Your task to perform on an android device: set the timer Image 0: 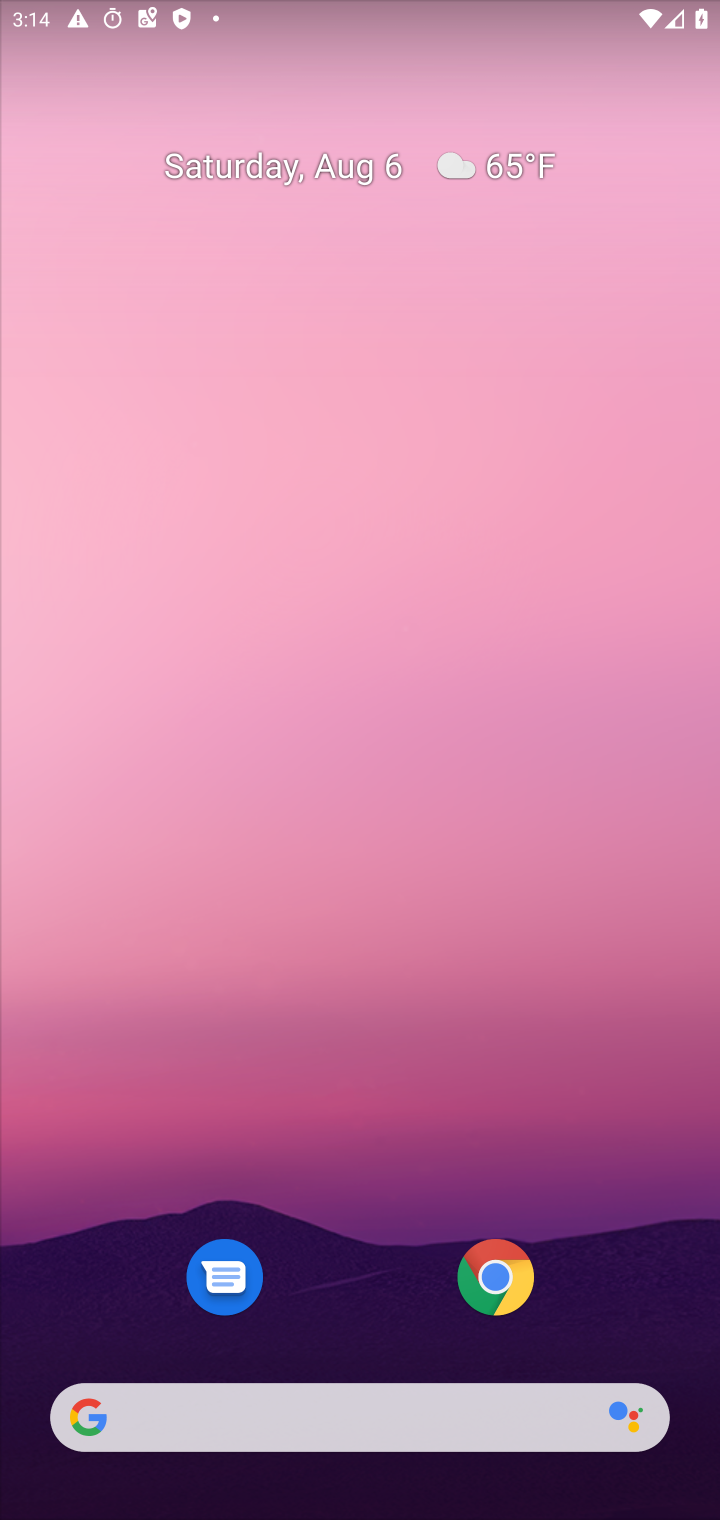
Step 0: drag from (448, 1405) to (498, 368)
Your task to perform on an android device: set the timer Image 1: 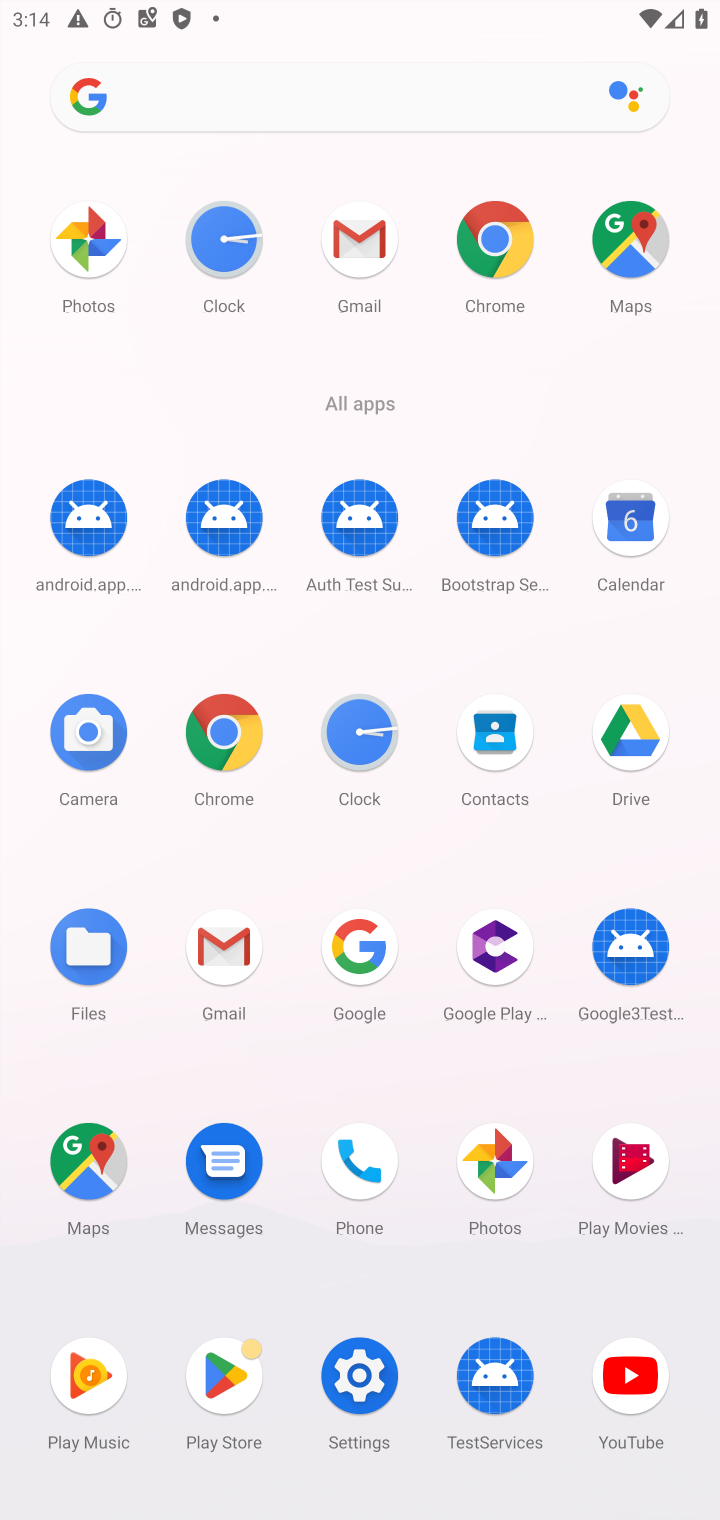
Step 1: click (355, 729)
Your task to perform on an android device: set the timer Image 2: 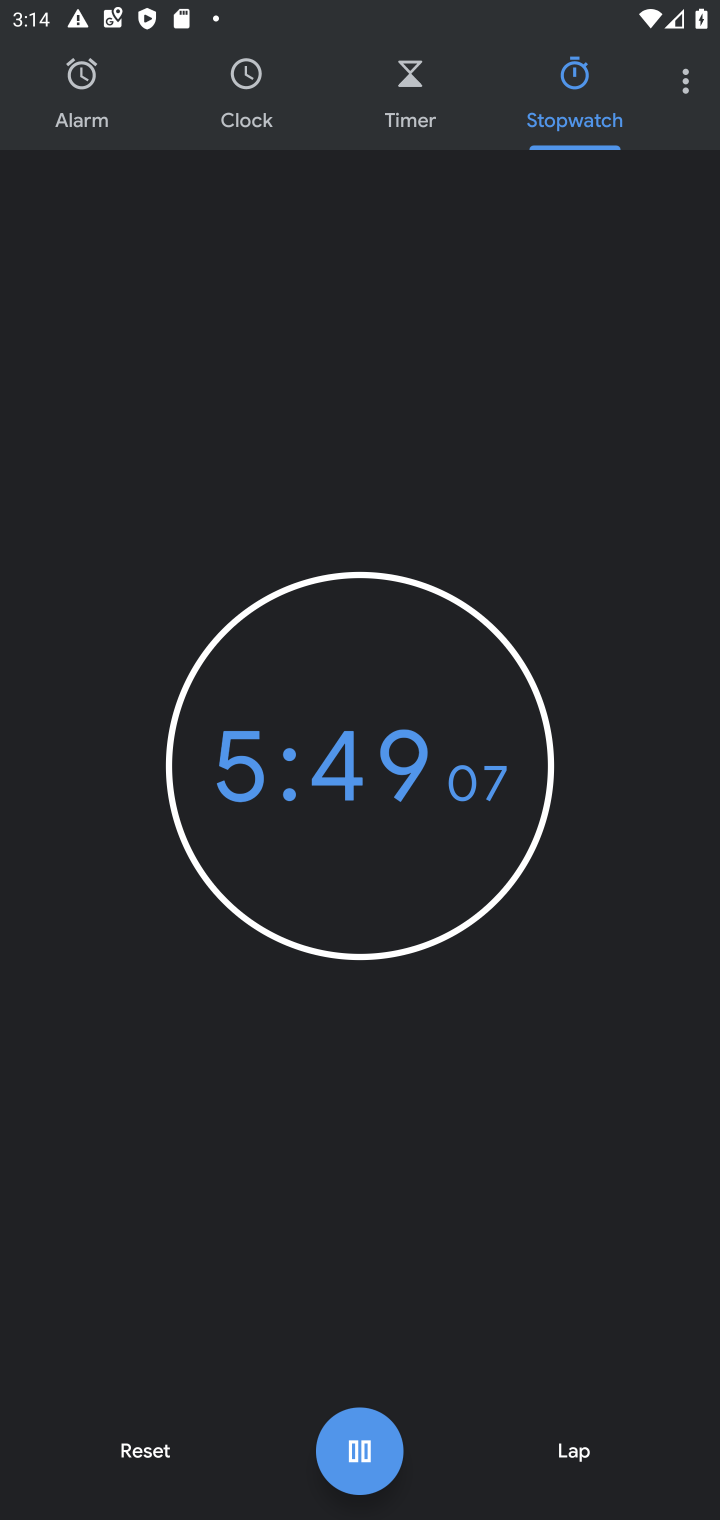
Step 2: click (433, 132)
Your task to perform on an android device: set the timer Image 3: 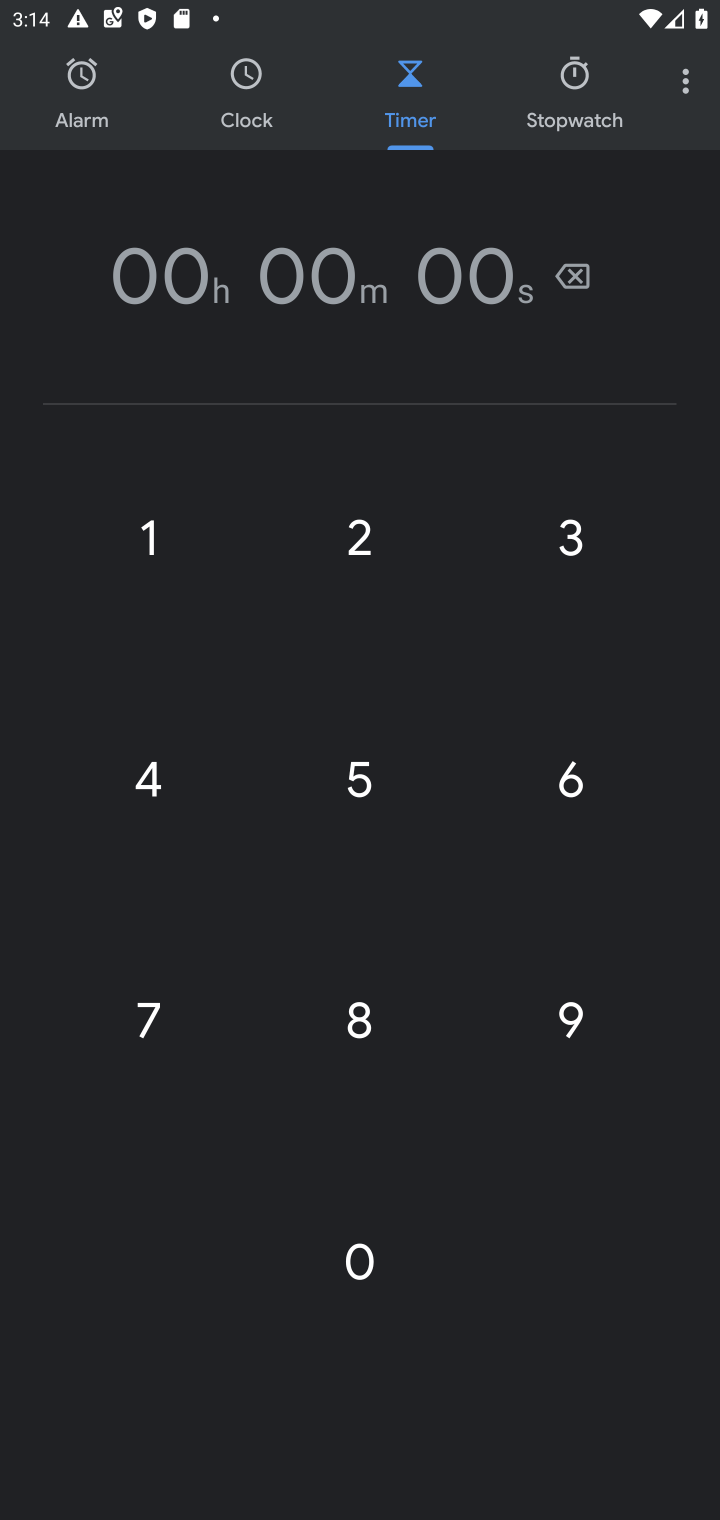
Step 3: click (586, 1006)
Your task to perform on an android device: set the timer Image 4: 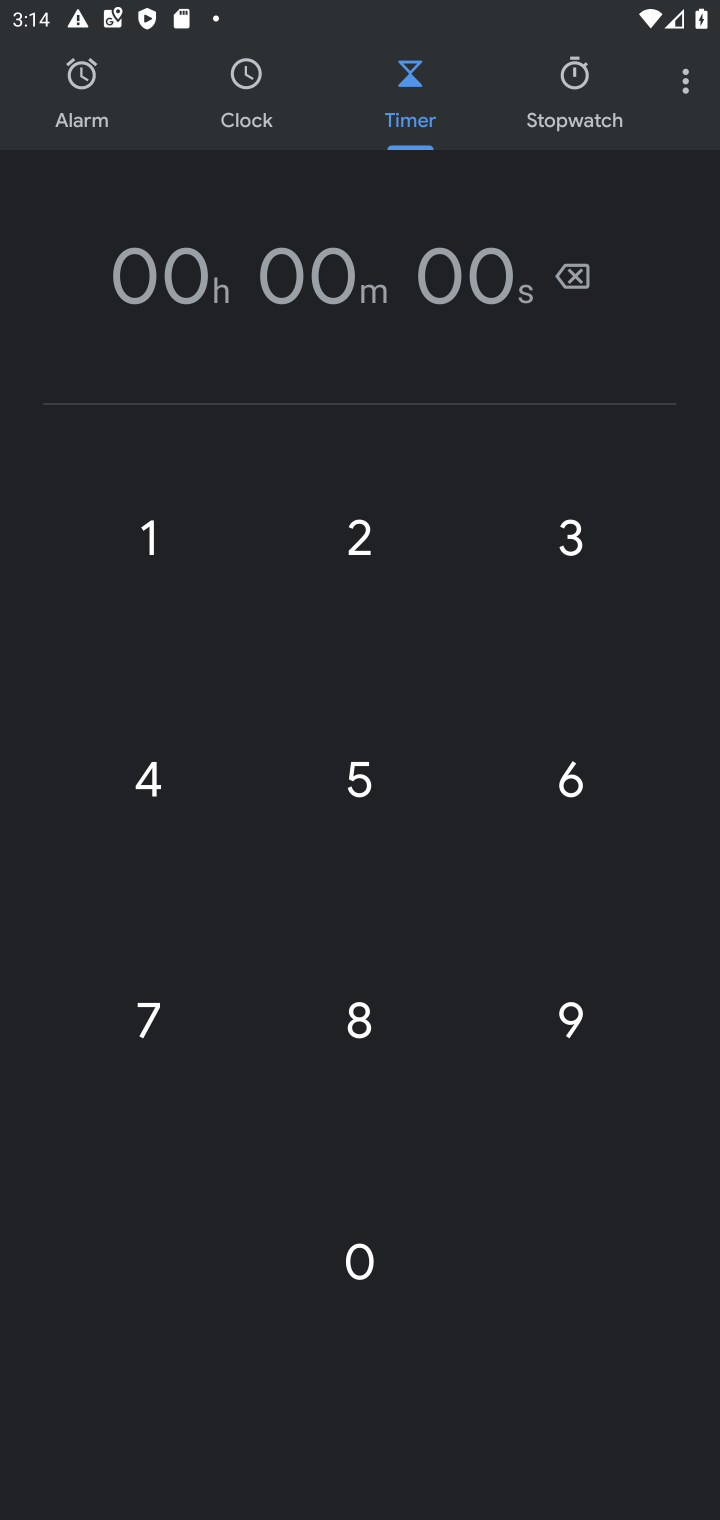
Step 4: click (586, 1006)
Your task to perform on an android device: set the timer Image 5: 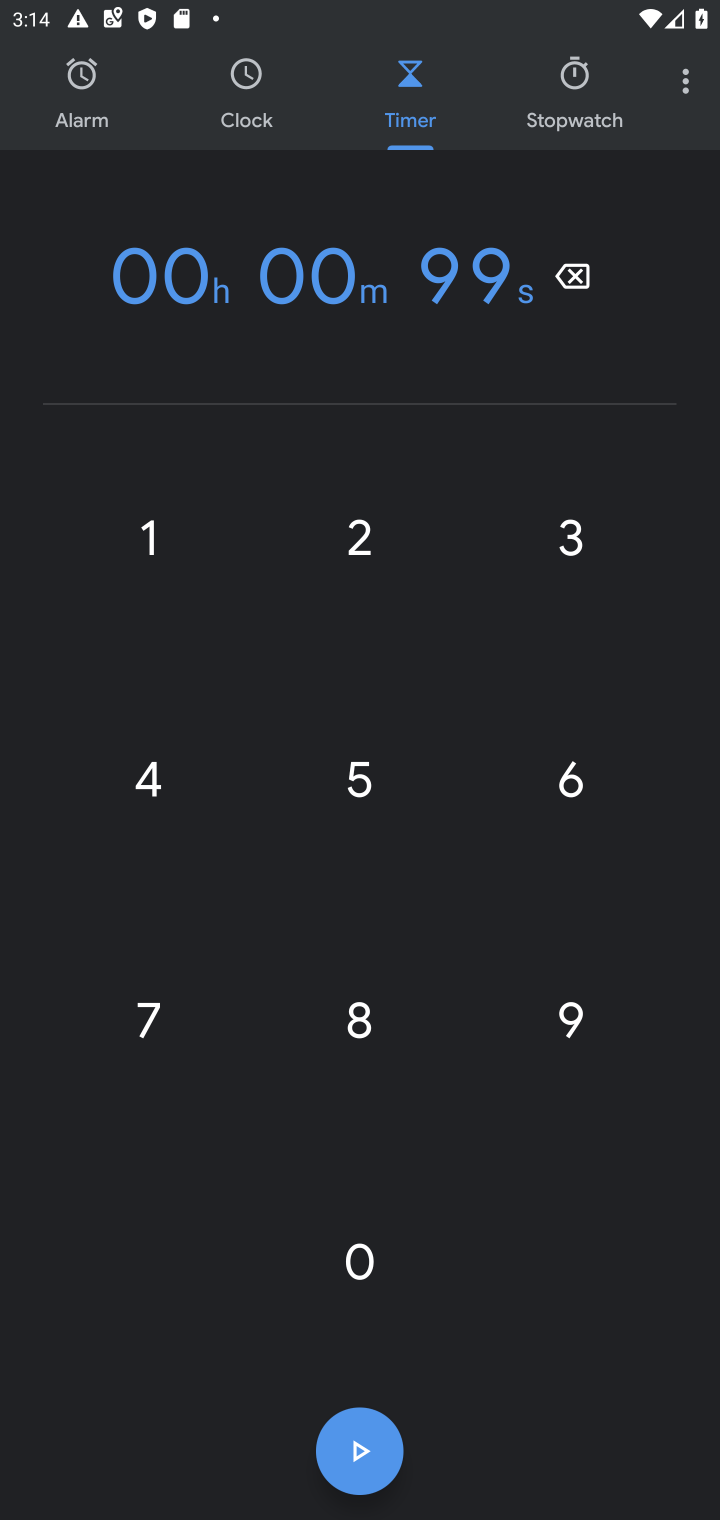
Step 5: click (356, 1420)
Your task to perform on an android device: set the timer Image 6: 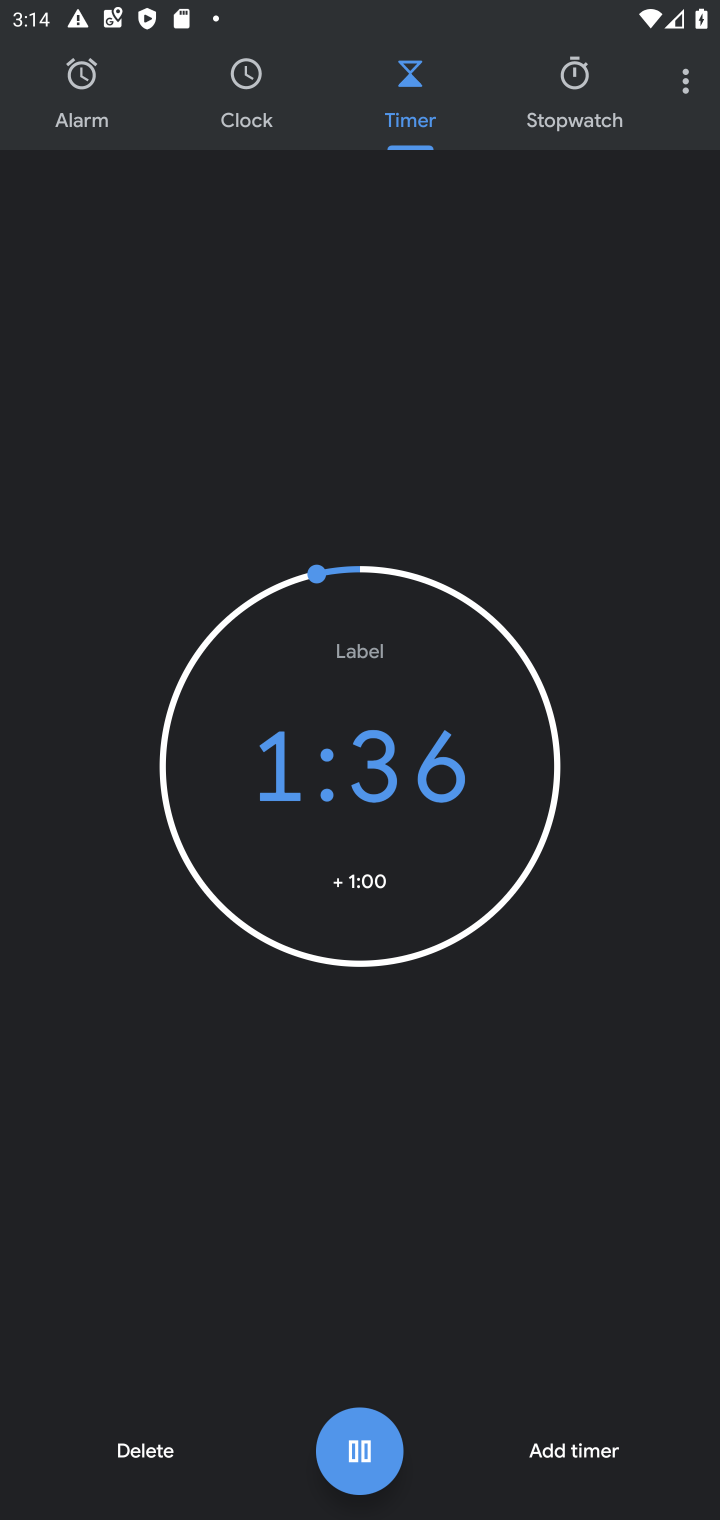
Step 6: task complete